Your task to perform on an android device: turn on airplane mode Image 0: 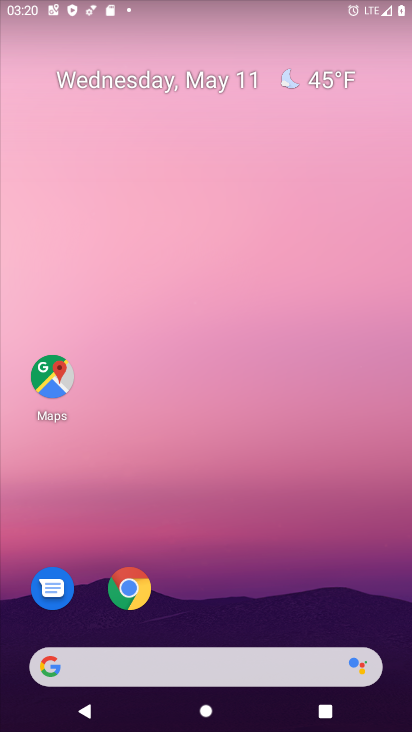
Step 0: drag from (235, 538) to (291, 162)
Your task to perform on an android device: turn on airplane mode Image 1: 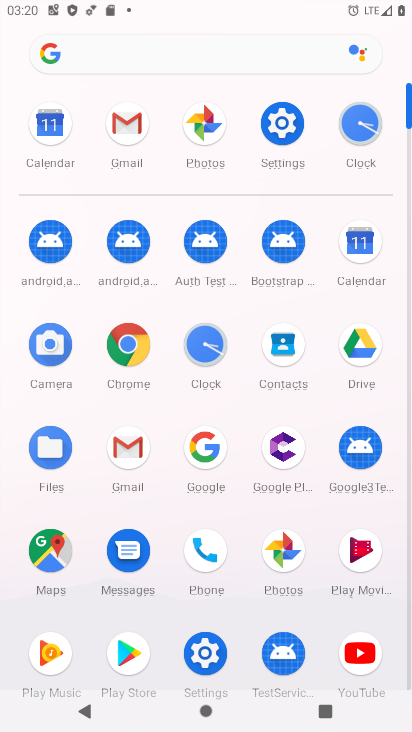
Step 1: click (291, 116)
Your task to perform on an android device: turn on airplane mode Image 2: 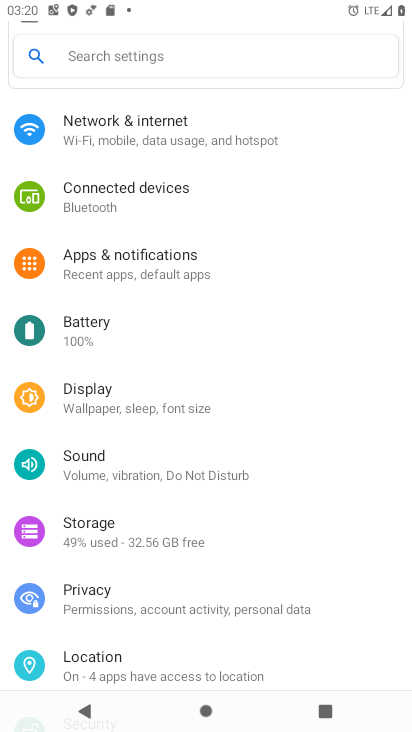
Step 2: click (159, 159)
Your task to perform on an android device: turn on airplane mode Image 3: 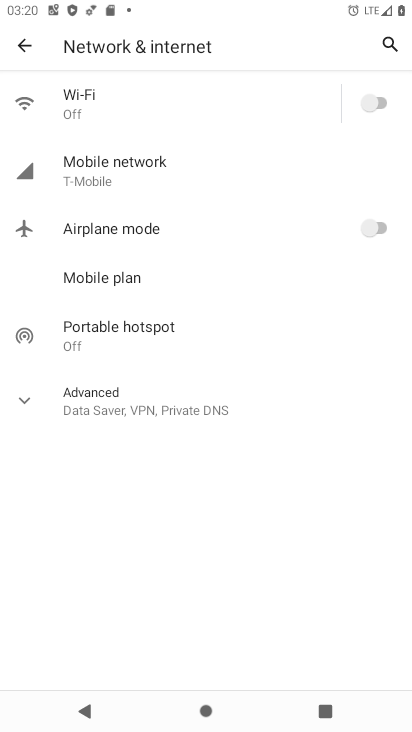
Step 3: click (390, 228)
Your task to perform on an android device: turn on airplane mode Image 4: 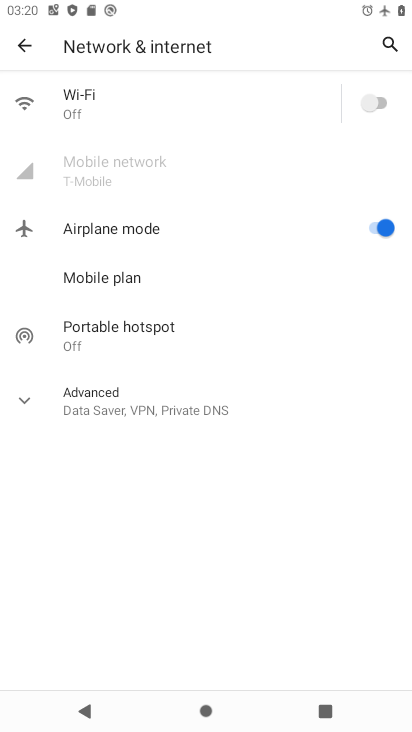
Step 4: task complete